Your task to perform on an android device: search for starred emails in the gmail app Image 0: 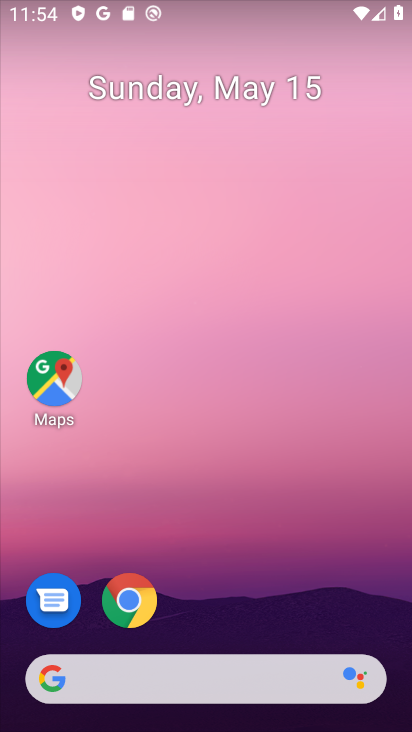
Step 0: drag from (217, 723) to (192, 161)
Your task to perform on an android device: search for starred emails in the gmail app Image 1: 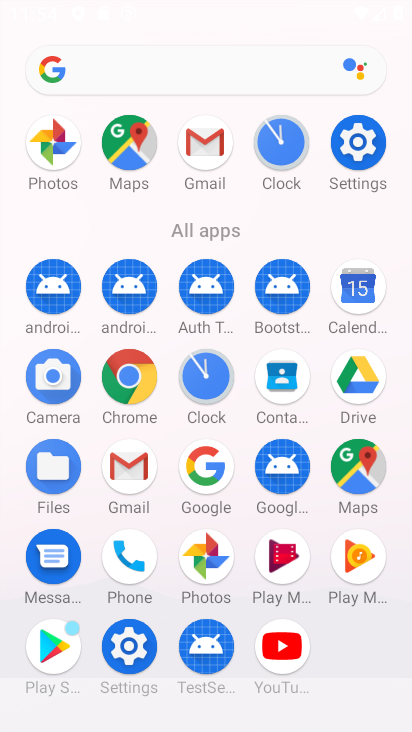
Step 1: click (120, 469)
Your task to perform on an android device: search for starred emails in the gmail app Image 2: 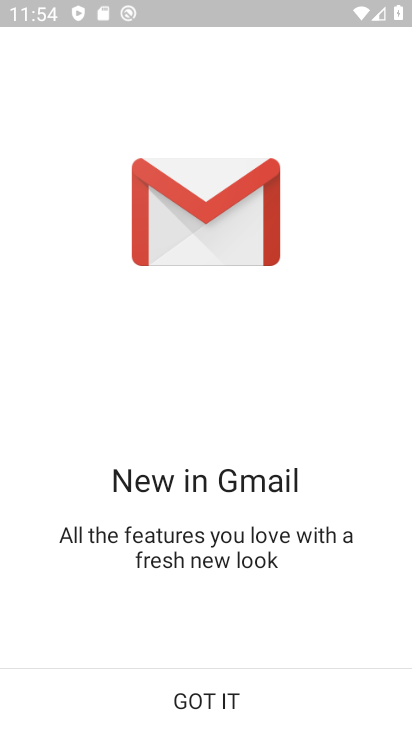
Step 2: click (191, 709)
Your task to perform on an android device: search for starred emails in the gmail app Image 3: 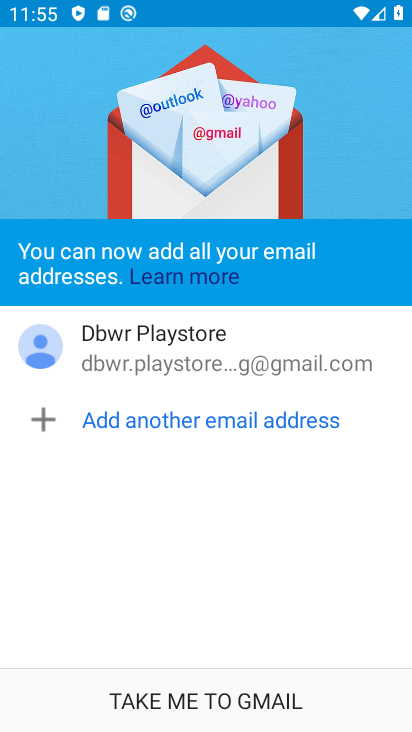
Step 3: click (192, 698)
Your task to perform on an android device: search for starred emails in the gmail app Image 4: 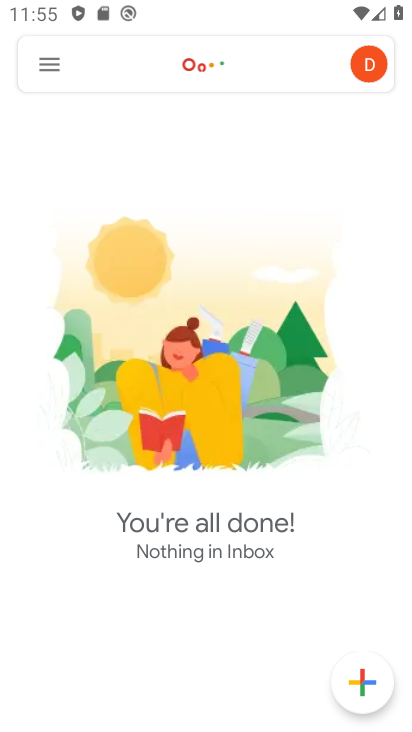
Step 4: click (49, 62)
Your task to perform on an android device: search for starred emails in the gmail app Image 5: 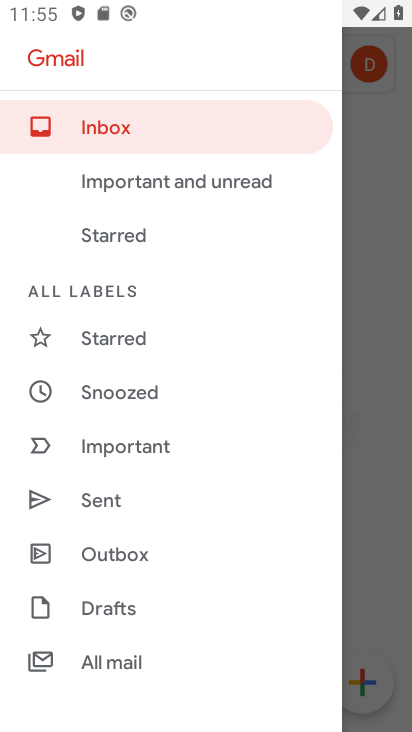
Step 5: click (115, 330)
Your task to perform on an android device: search for starred emails in the gmail app Image 6: 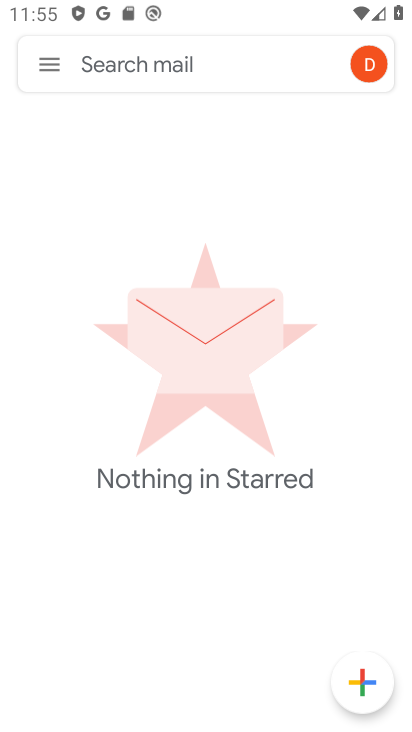
Step 6: task complete